Your task to perform on an android device: Is it going to rain today? Image 0: 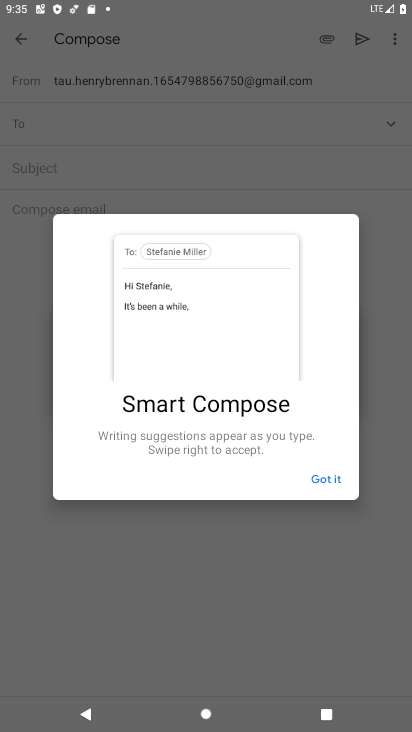
Step 0: press home button
Your task to perform on an android device: Is it going to rain today? Image 1: 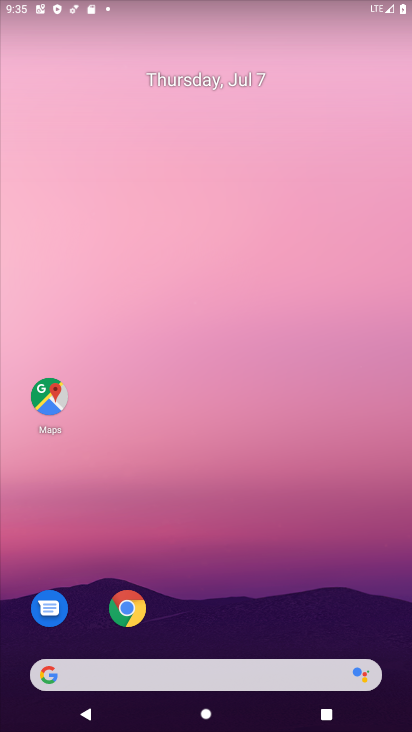
Step 1: drag from (222, 606) to (280, 84)
Your task to perform on an android device: Is it going to rain today? Image 2: 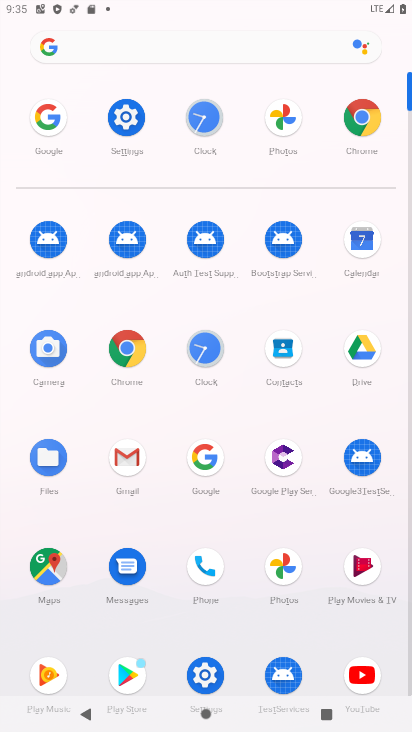
Step 2: click (209, 457)
Your task to perform on an android device: Is it going to rain today? Image 3: 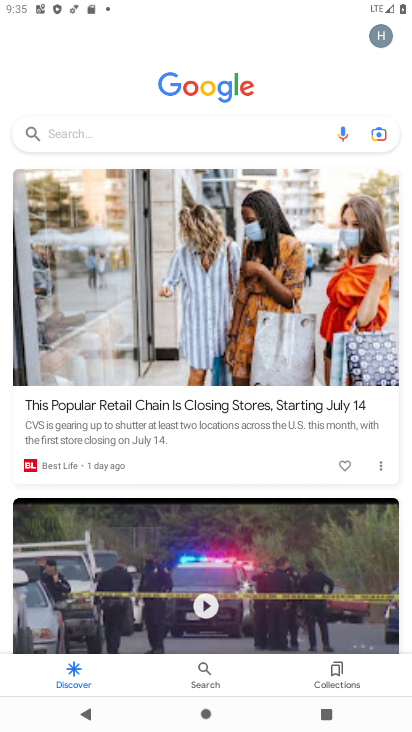
Step 3: click (124, 116)
Your task to perform on an android device: Is it going to rain today? Image 4: 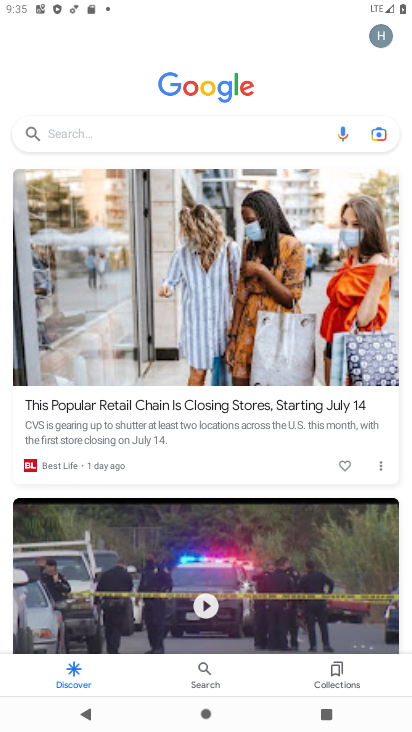
Step 4: click (180, 131)
Your task to perform on an android device: Is it going to rain today? Image 5: 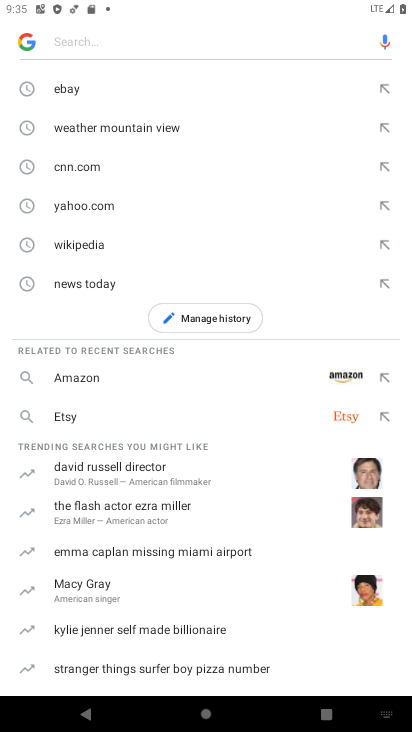
Step 5: type "rain today"
Your task to perform on an android device: Is it going to rain today? Image 6: 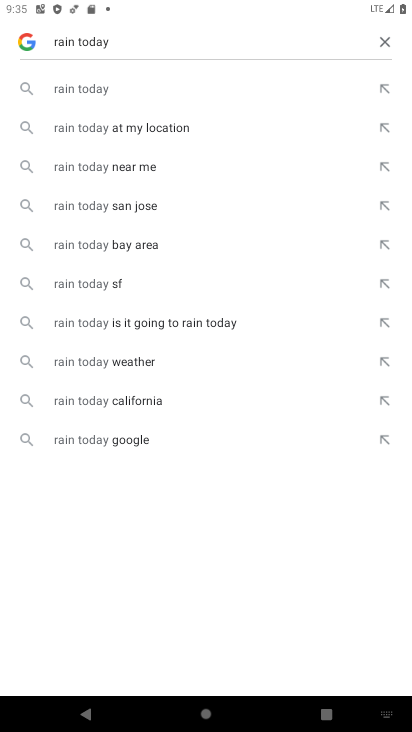
Step 6: click (86, 90)
Your task to perform on an android device: Is it going to rain today? Image 7: 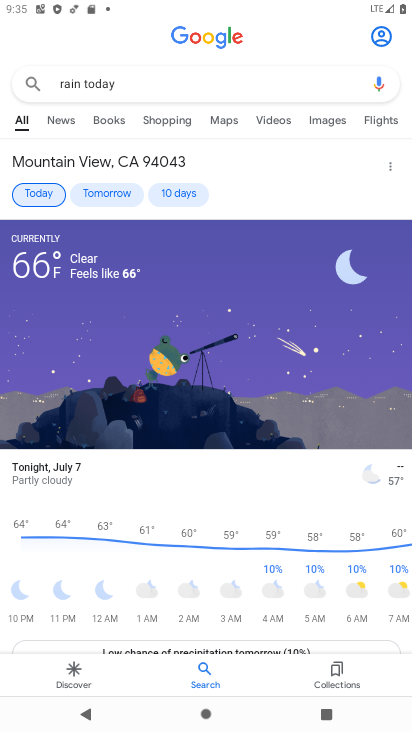
Step 7: task complete